Your task to perform on an android device: make emails show in primary in the gmail app Image 0: 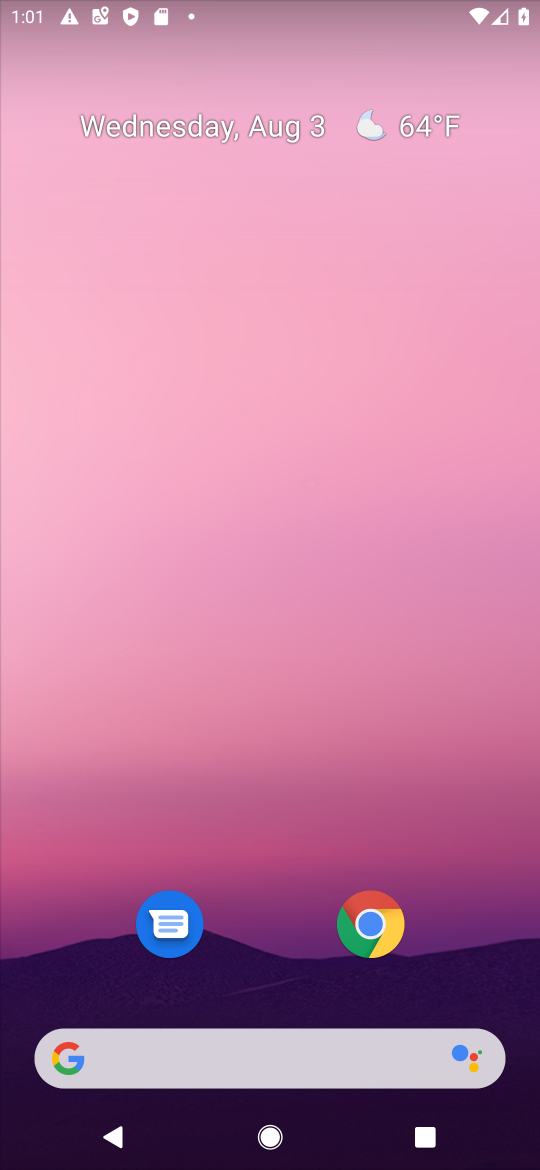
Step 0: drag from (289, 977) to (311, 61)
Your task to perform on an android device: make emails show in primary in the gmail app Image 1: 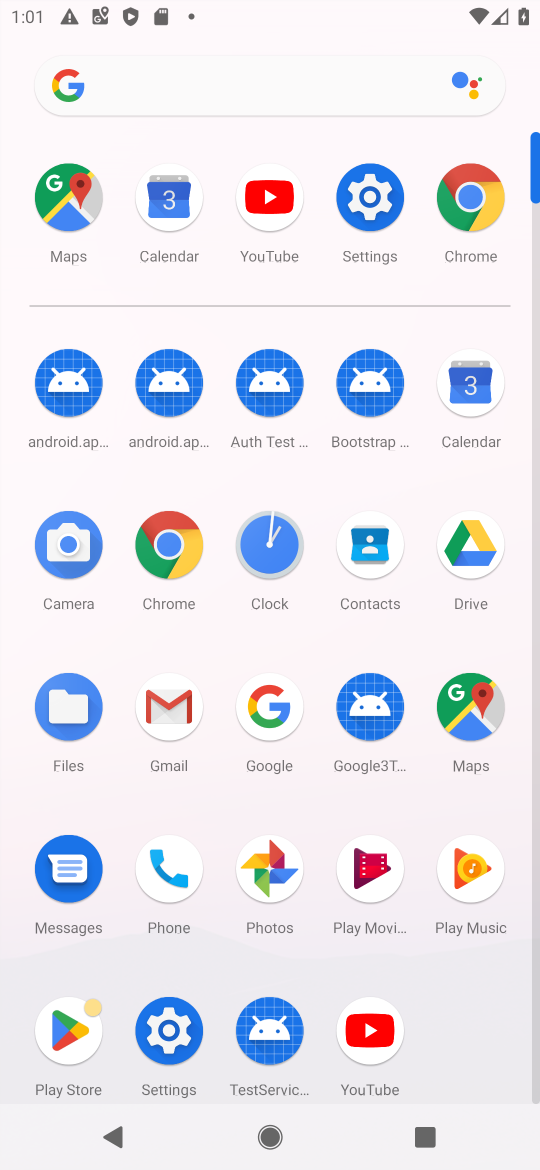
Step 1: click (180, 699)
Your task to perform on an android device: make emails show in primary in the gmail app Image 2: 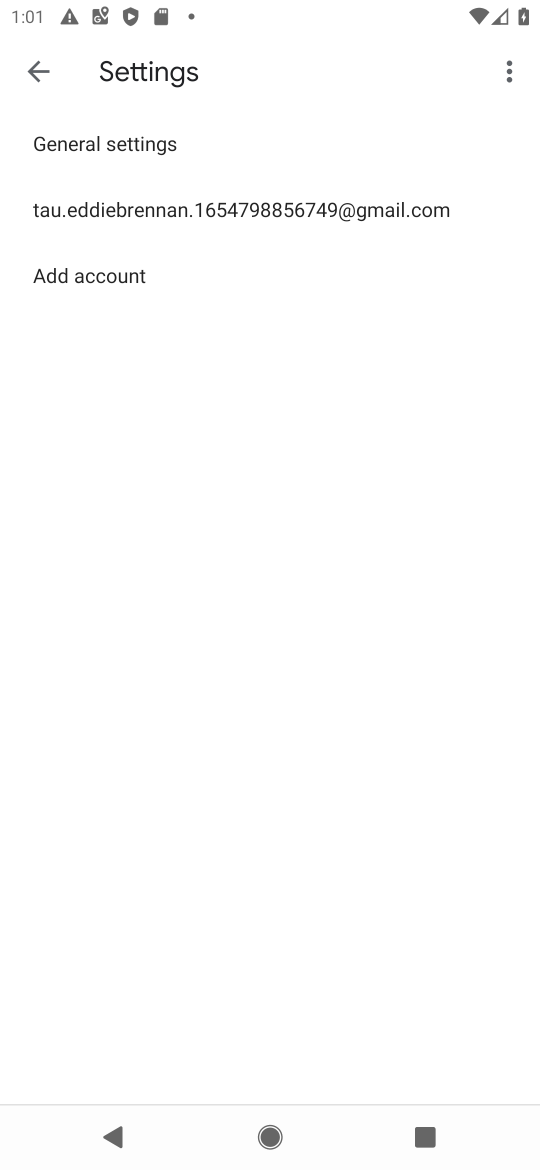
Step 2: click (29, 59)
Your task to perform on an android device: make emails show in primary in the gmail app Image 3: 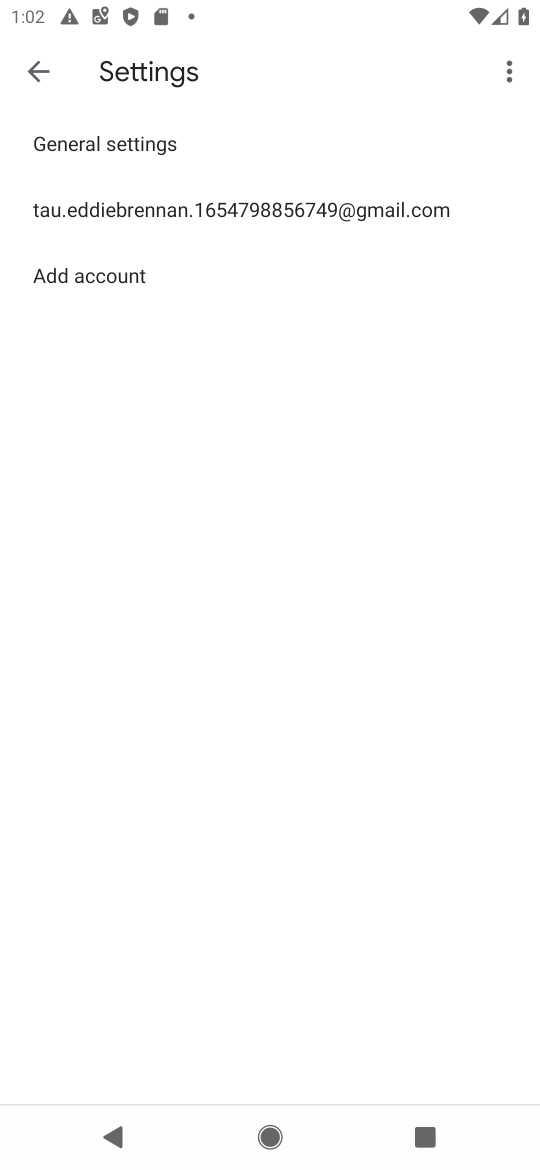
Step 3: click (129, 191)
Your task to perform on an android device: make emails show in primary in the gmail app Image 4: 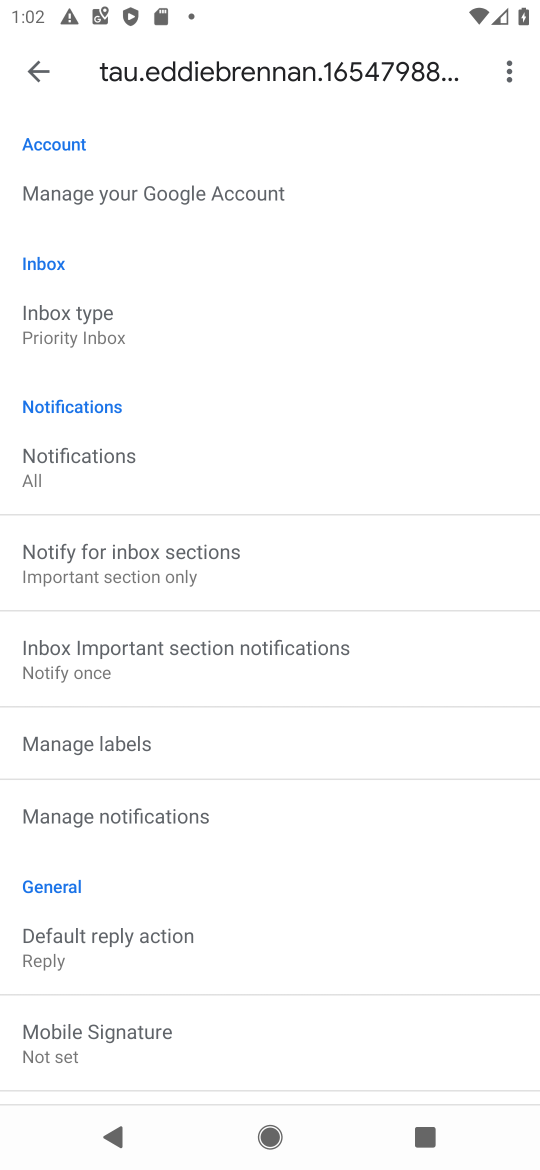
Step 4: task complete